Your task to perform on an android device: What is the news today? Image 0: 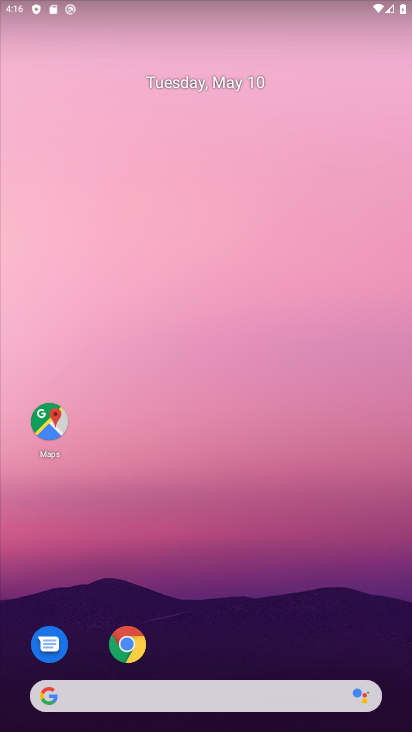
Step 0: drag from (155, 683) to (177, 242)
Your task to perform on an android device: What is the news today? Image 1: 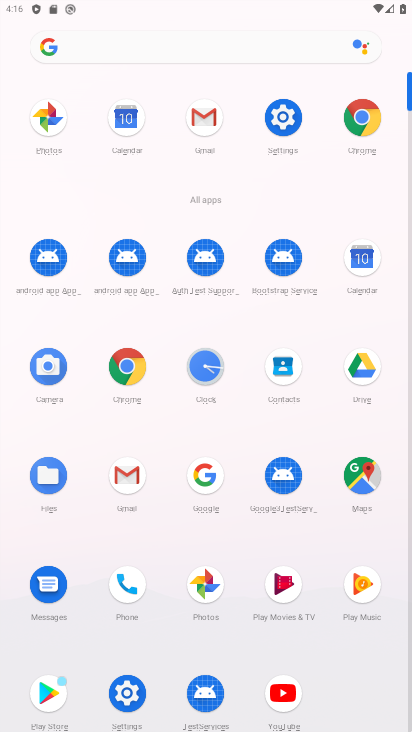
Step 1: click (211, 474)
Your task to perform on an android device: What is the news today? Image 2: 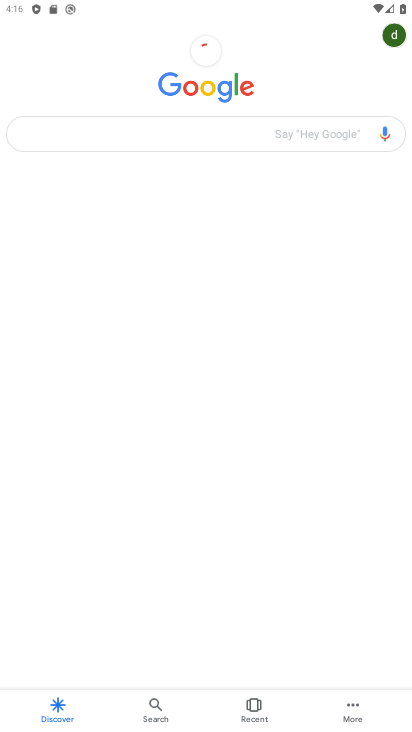
Step 2: click (131, 139)
Your task to perform on an android device: What is the news today? Image 3: 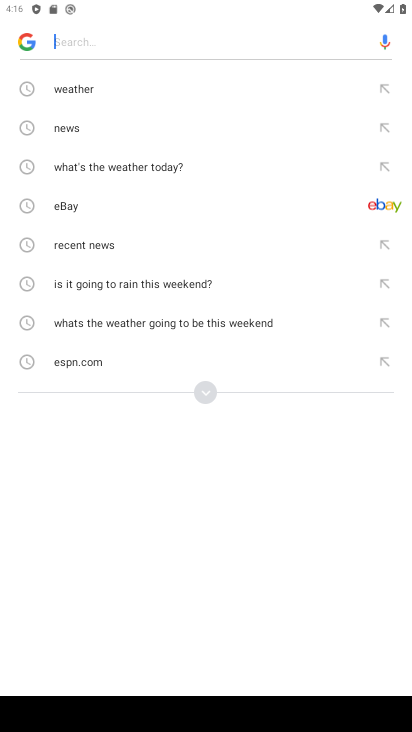
Step 3: click (74, 125)
Your task to perform on an android device: What is the news today? Image 4: 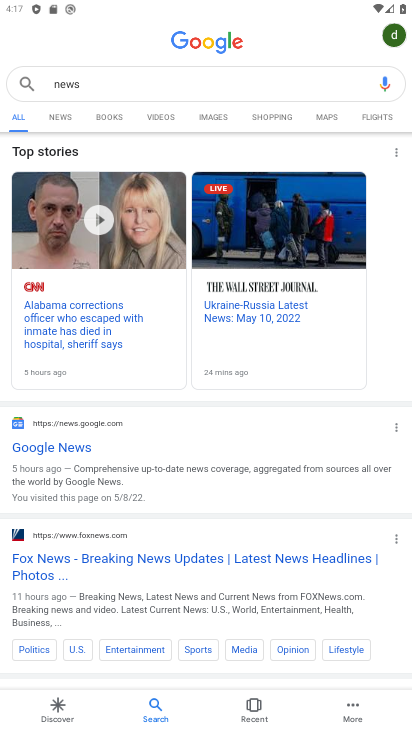
Step 4: task complete